Your task to perform on an android device: snooze an email in the gmail app Image 0: 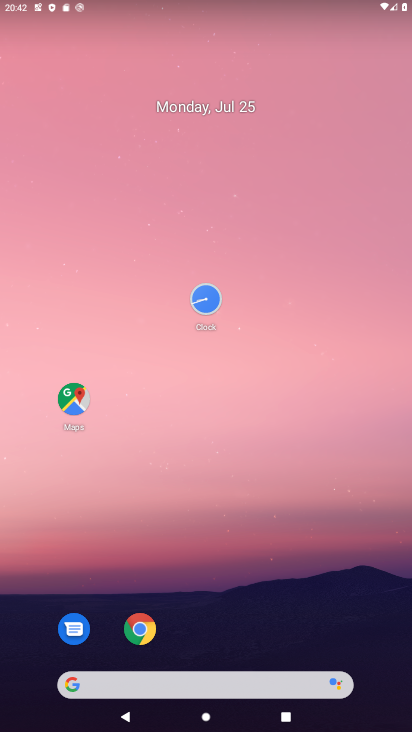
Step 0: drag from (216, 605) to (380, 2)
Your task to perform on an android device: snooze an email in the gmail app Image 1: 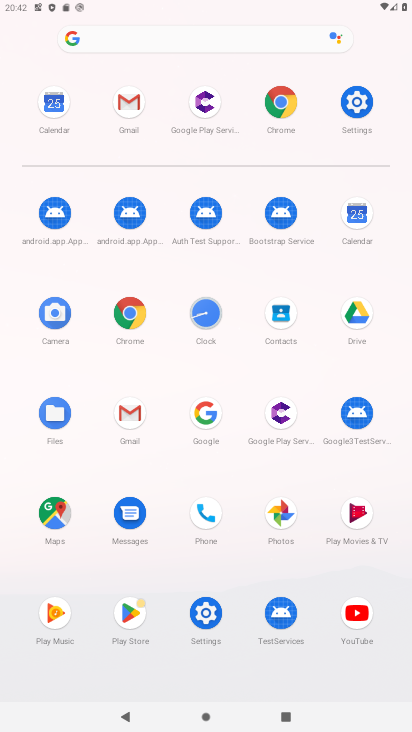
Step 1: click (125, 421)
Your task to perform on an android device: snooze an email in the gmail app Image 2: 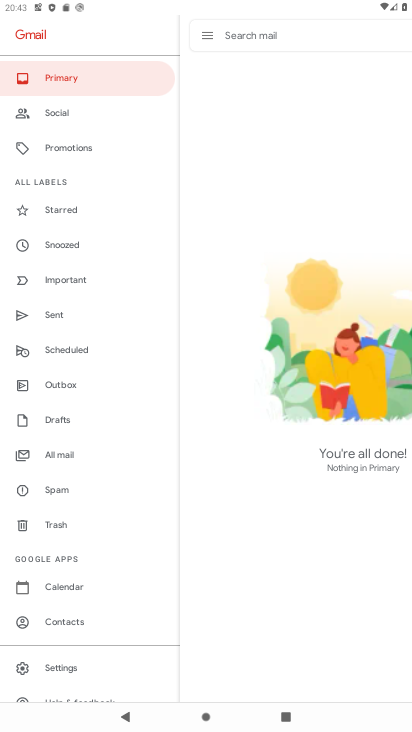
Step 2: task complete